Your task to perform on an android device: turn on showing notifications on the lock screen Image 0: 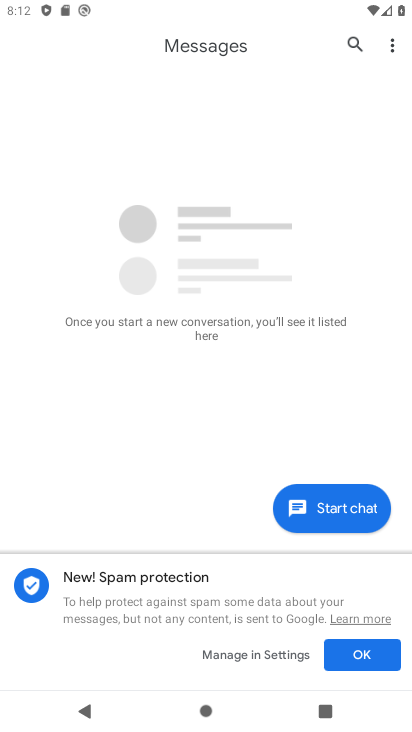
Step 0: press home button
Your task to perform on an android device: turn on showing notifications on the lock screen Image 1: 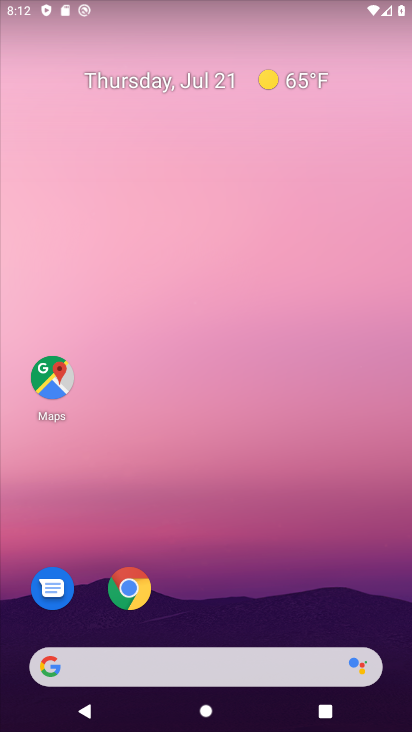
Step 1: drag from (247, 639) to (162, 21)
Your task to perform on an android device: turn on showing notifications on the lock screen Image 2: 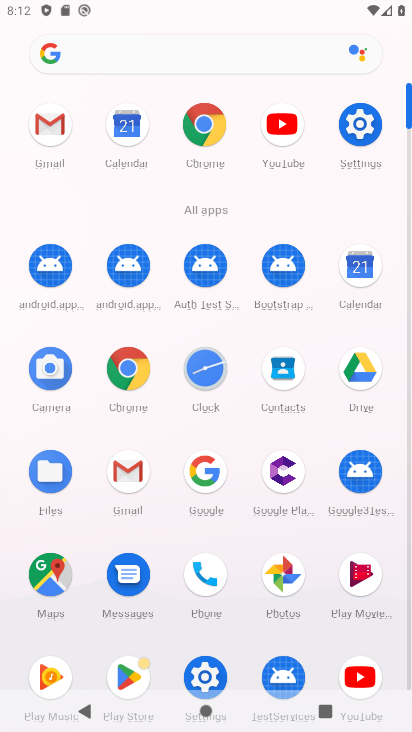
Step 2: click (367, 137)
Your task to perform on an android device: turn on showing notifications on the lock screen Image 3: 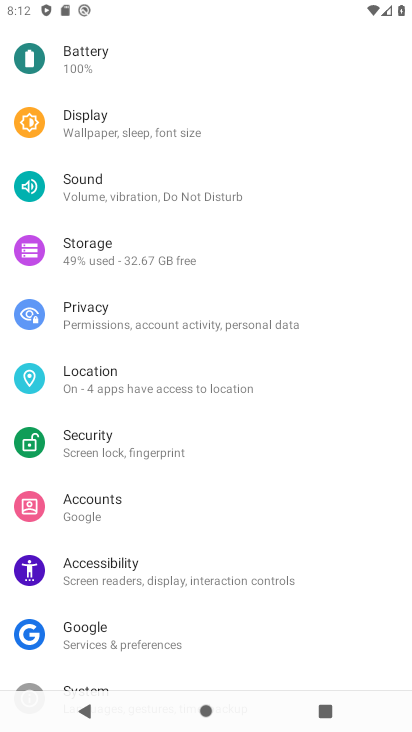
Step 3: drag from (158, 492) to (268, 718)
Your task to perform on an android device: turn on showing notifications on the lock screen Image 4: 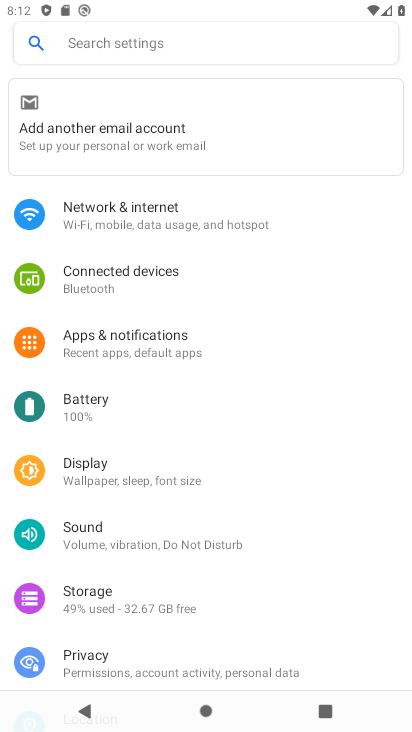
Step 4: click (167, 334)
Your task to perform on an android device: turn on showing notifications on the lock screen Image 5: 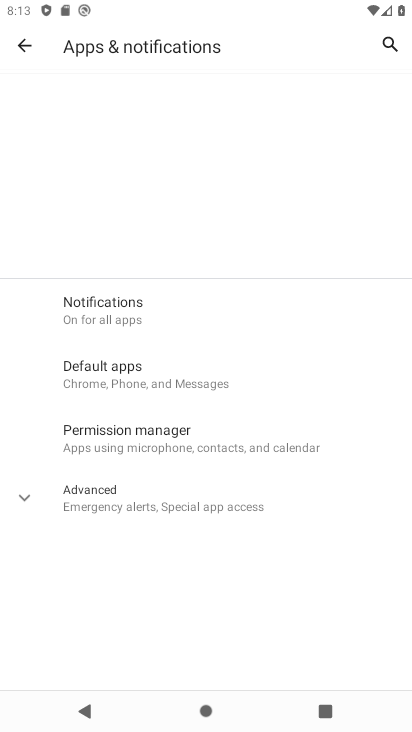
Step 5: click (147, 304)
Your task to perform on an android device: turn on showing notifications on the lock screen Image 6: 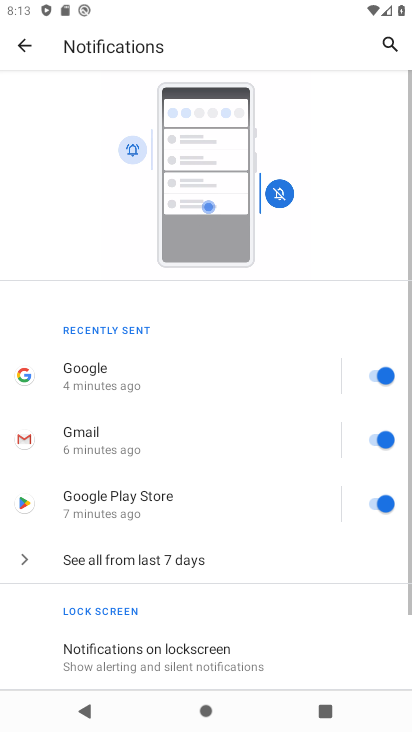
Step 6: click (168, 644)
Your task to perform on an android device: turn on showing notifications on the lock screen Image 7: 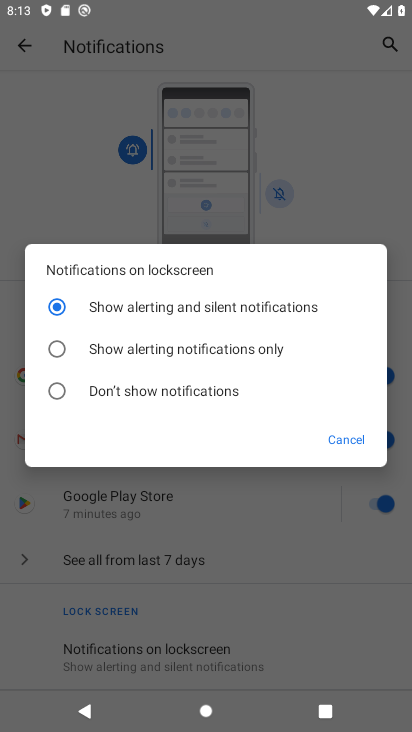
Step 7: click (104, 311)
Your task to perform on an android device: turn on showing notifications on the lock screen Image 8: 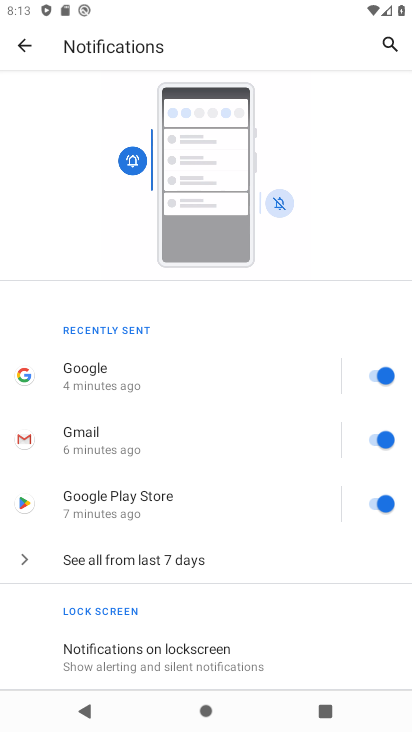
Step 8: task complete